Your task to perform on an android device: What is the news today? Image 0: 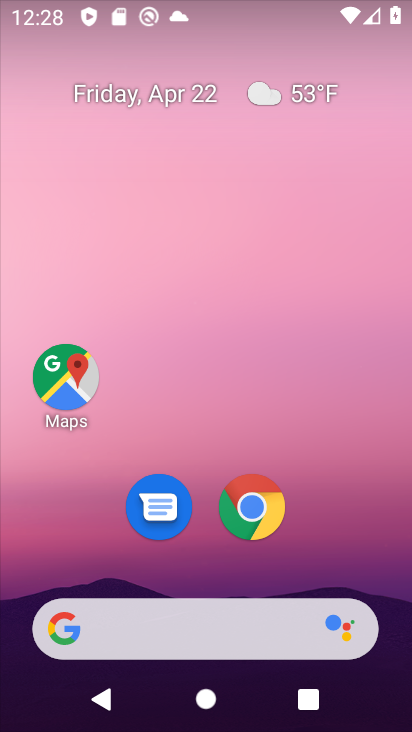
Step 0: click (260, 508)
Your task to perform on an android device: What is the news today? Image 1: 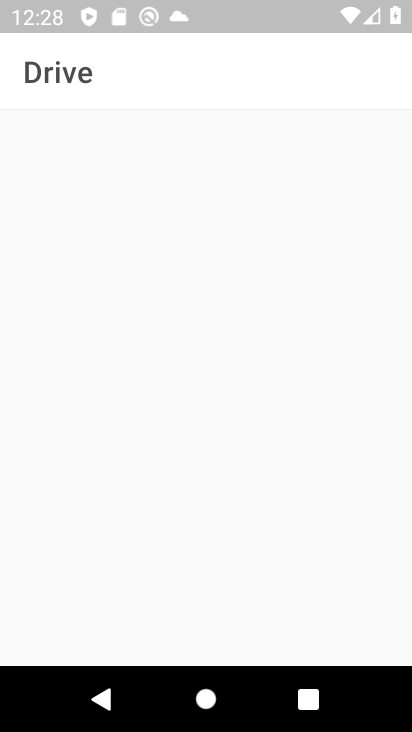
Step 1: press home button
Your task to perform on an android device: What is the news today? Image 2: 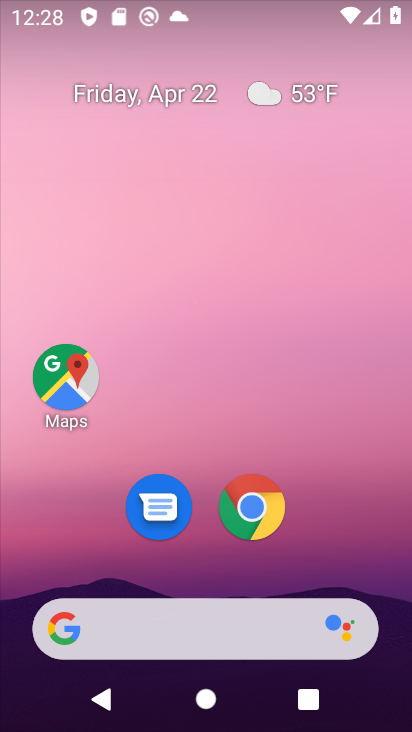
Step 2: click (260, 518)
Your task to perform on an android device: What is the news today? Image 3: 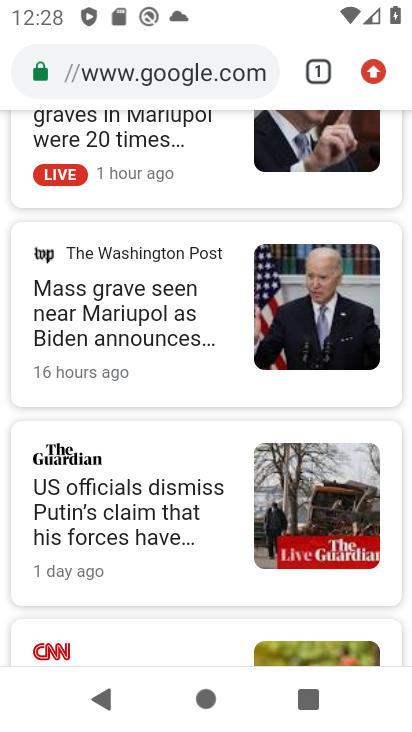
Step 3: click (321, 69)
Your task to perform on an android device: What is the news today? Image 4: 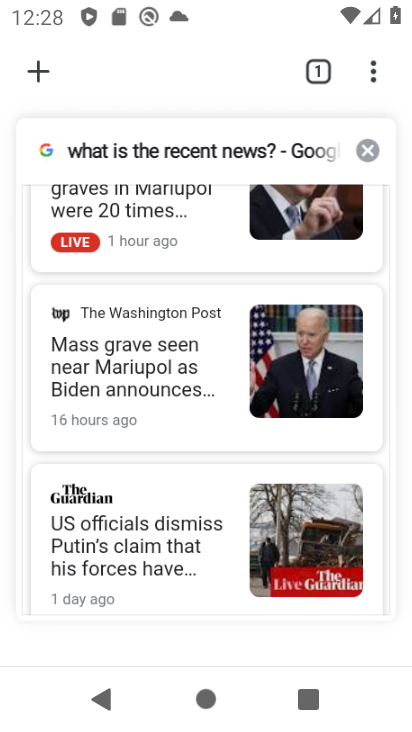
Step 4: click (45, 74)
Your task to perform on an android device: What is the news today? Image 5: 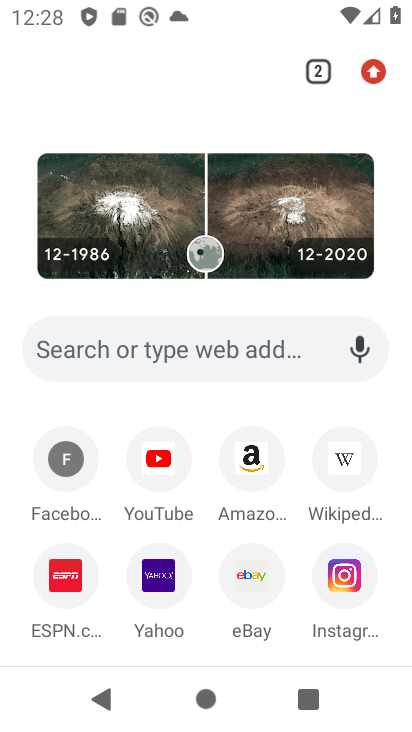
Step 5: click (199, 342)
Your task to perform on an android device: What is the news today? Image 6: 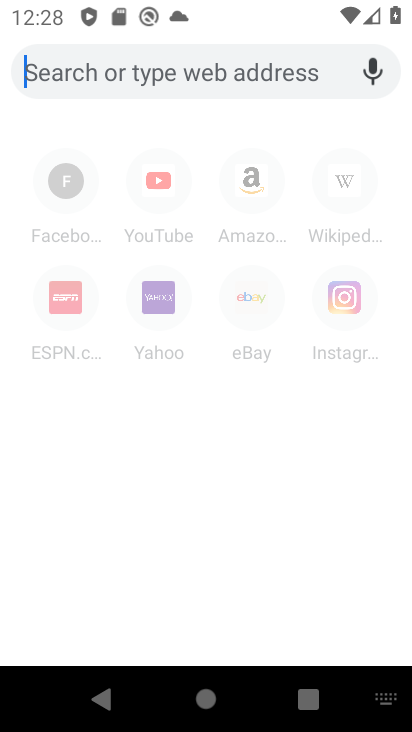
Step 6: type "what is the new today"
Your task to perform on an android device: What is the news today? Image 7: 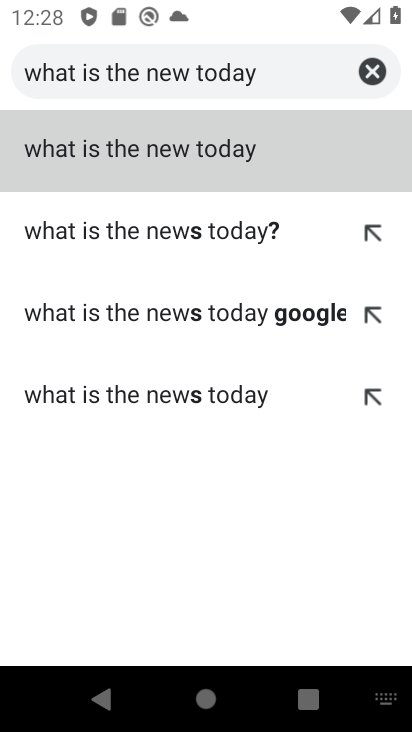
Step 7: click (207, 233)
Your task to perform on an android device: What is the news today? Image 8: 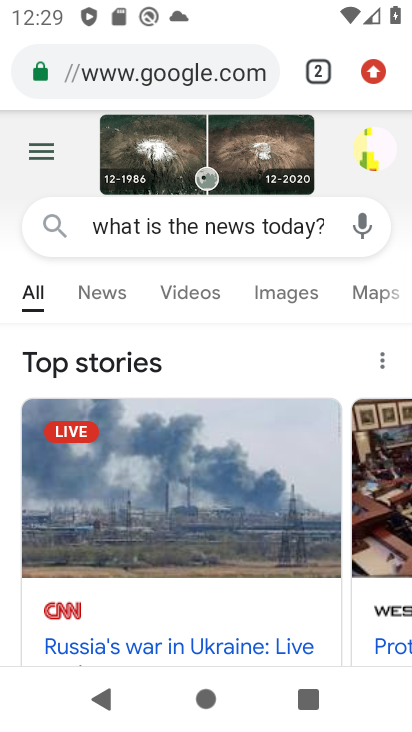
Step 8: click (106, 294)
Your task to perform on an android device: What is the news today? Image 9: 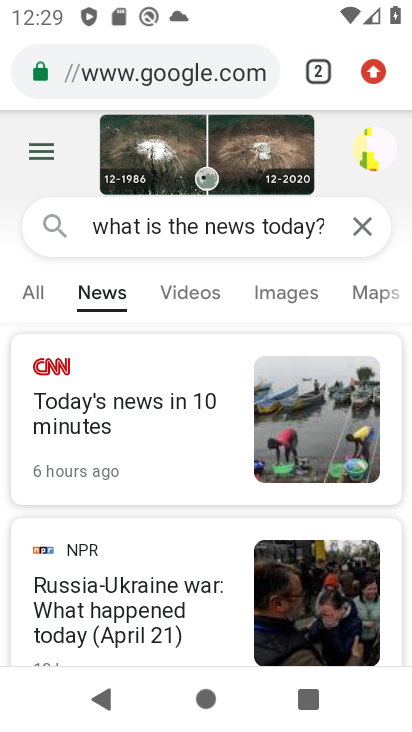
Step 9: task complete